Your task to perform on an android device: open device folders in google photos Image 0: 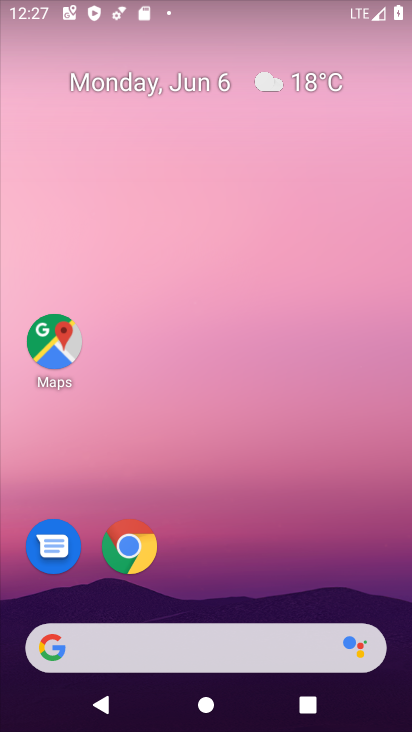
Step 0: drag from (295, 571) to (288, 87)
Your task to perform on an android device: open device folders in google photos Image 1: 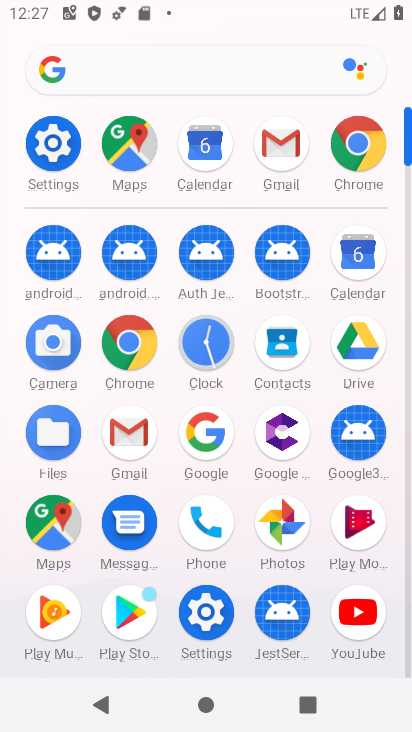
Step 1: click (285, 525)
Your task to perform on an android device: open device folders in google photos Image 2: 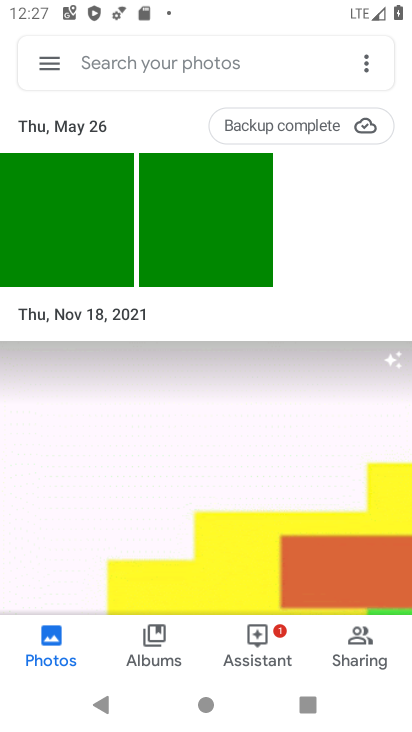
Step 2: click (47, 63)
Your task to perform on an android device: open device folders in google photos Image 3: 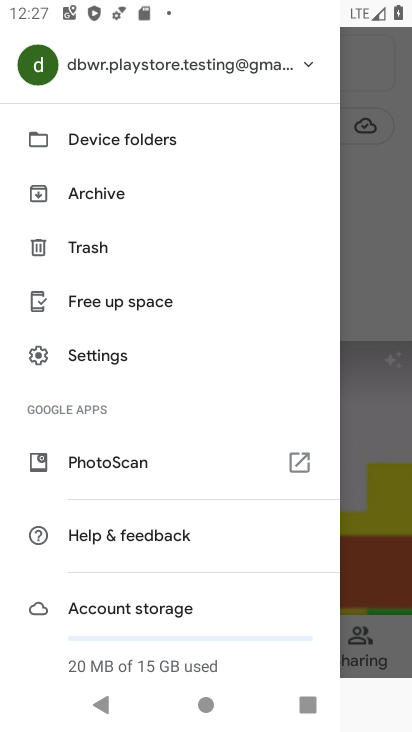
Step 3: click (106, 141)
Your task to perform on an android device: open device folders in google photos Image 4: 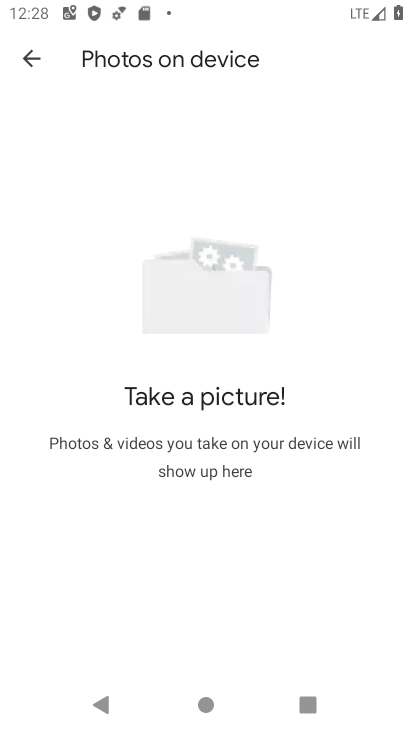
Step 4: task complete